Your task to perform on an android device: stop showing notifications on the lock screen Image 0: 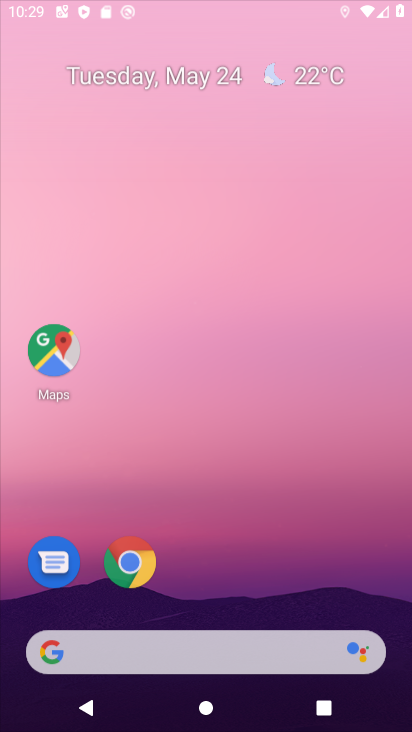
Step 0: click (131, 565)
Your task to perform on an android device: stop showing notifications on the lock screen Image 1: 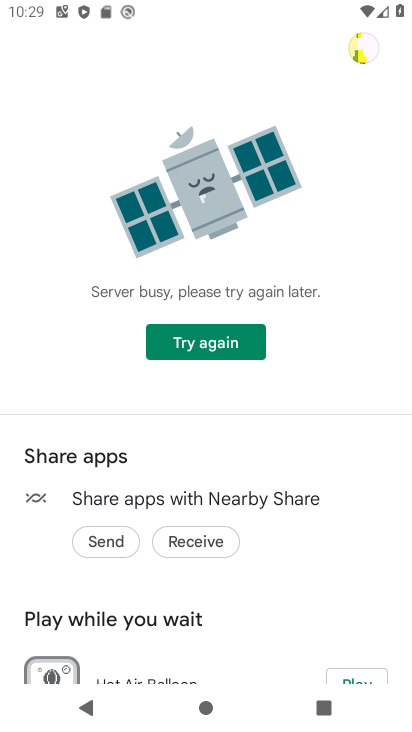
Step 1: press home button
Your task to perform on an android device: stop showing notifications on the lock screen Image 2: 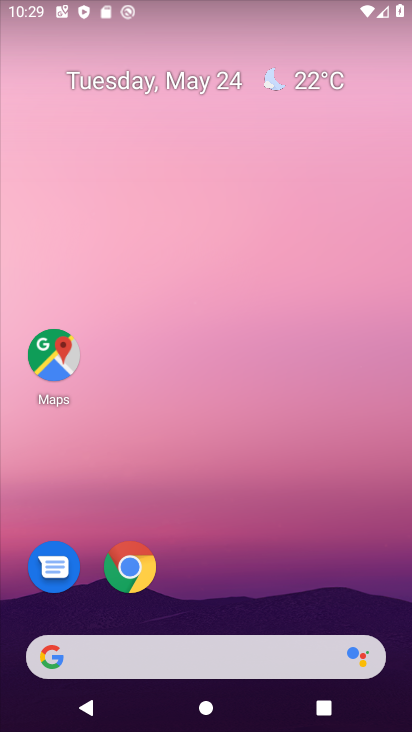
Step 2: drag from (192, 582) to (202, 13)
Your task to perform on an android device: stop showing notifications on the lock screen Image 3: 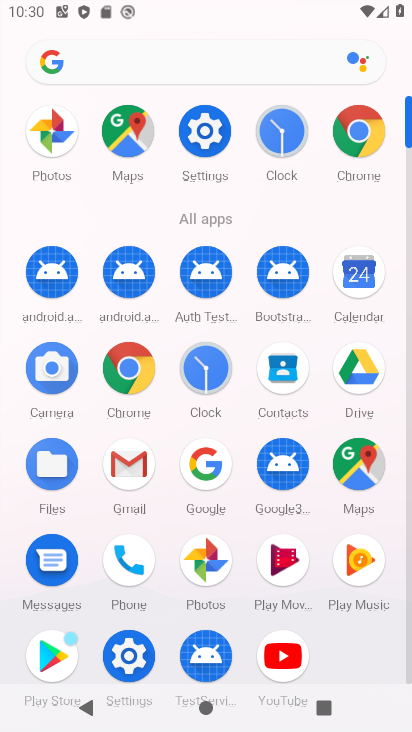
Step 3: click (197, 142)
Your task to perform on an android device: stop showing notifications on the lock screen Image 4: 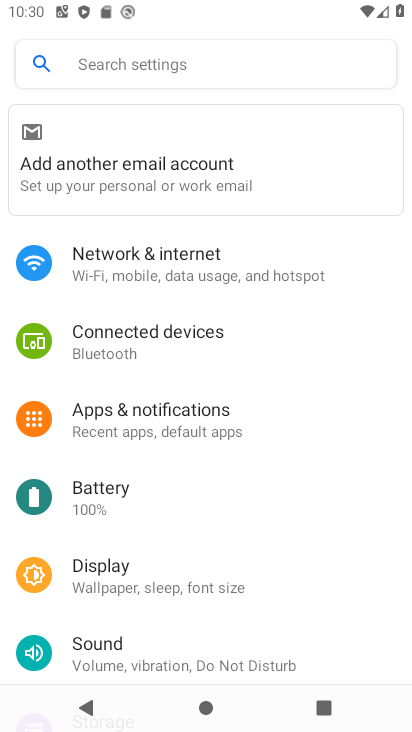
Step 4: click (214, 439)
Your task to perform on an android device: stop showing notifications on the lock screen Image 5: 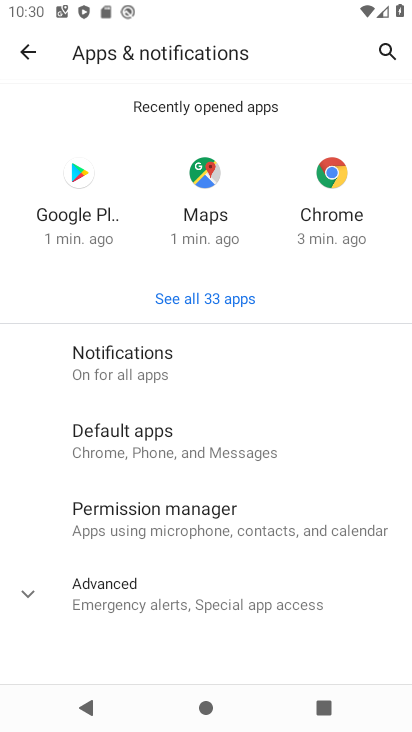
Step 5: click (129, 370)
Your task to perform on an android device: stop showing notifications on the lock screen Image 6: 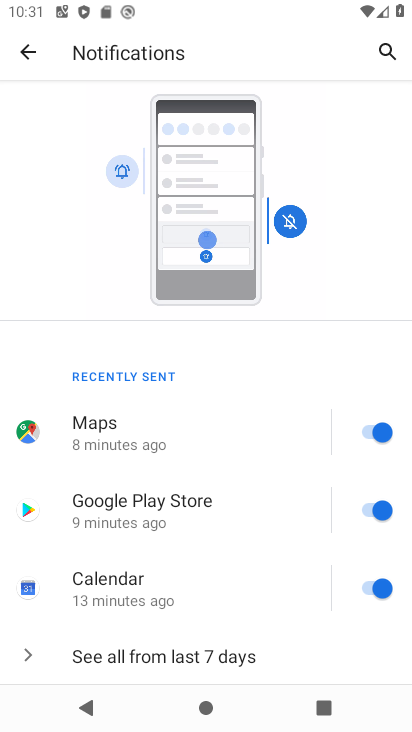
Step 6: drag from (181, 563) to (207, 261)
Your task to perform on an android device: stop showing notifications on the lock screen Image 7: 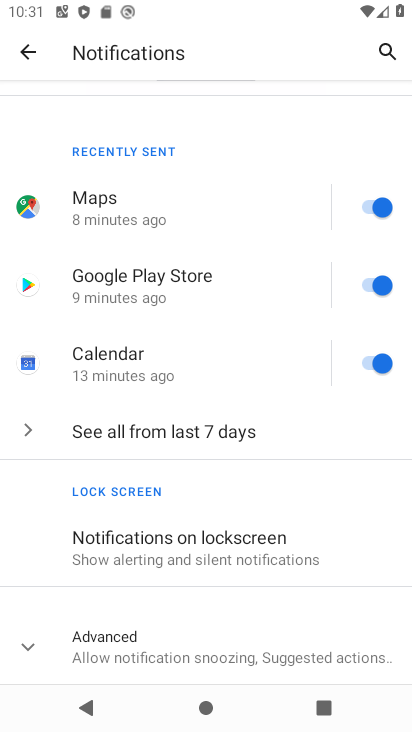
Step 7: drag from (129, 549) to (227, 160)
Your task to perform on an android device: stop showing notifications on the lock screen Image 8: 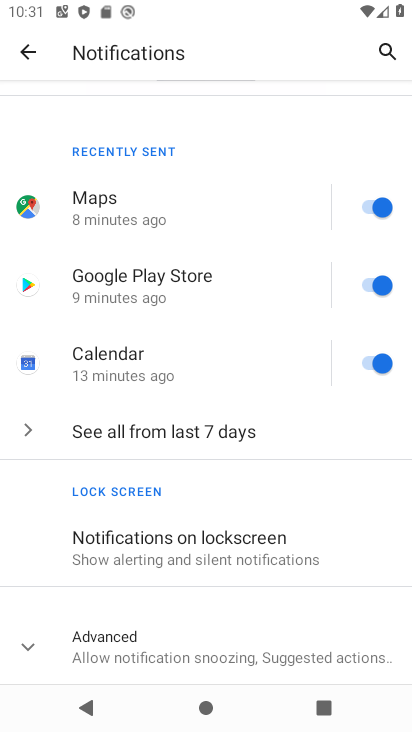
Step 8: click (185, 570)
Your task to perform on an android device: stop showing notifications on the lock screen Image 9: 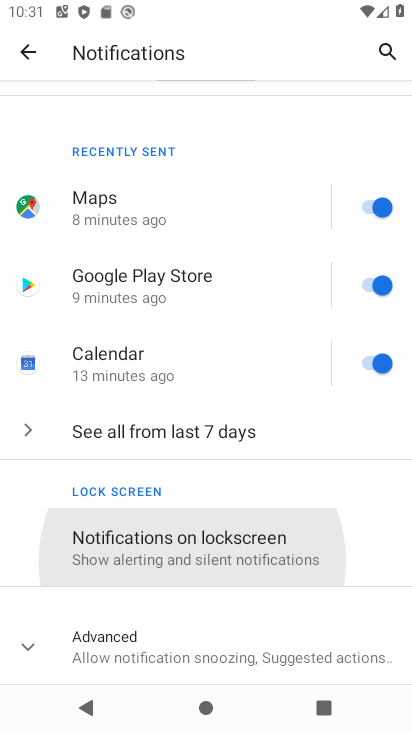
Step 9: click (168, 556)
Your task to perform on an android device: stop showing notifications on the lock screen Image 10: 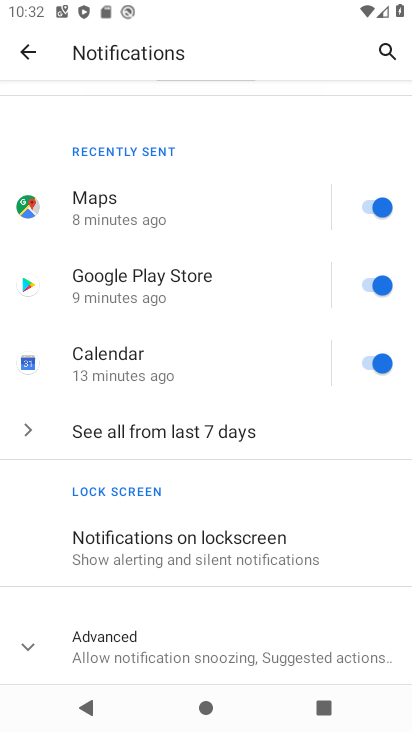
Step 10: click (162, 559)
Your task to perform on an android device: stop showing notifications on the lock screen Image 11: 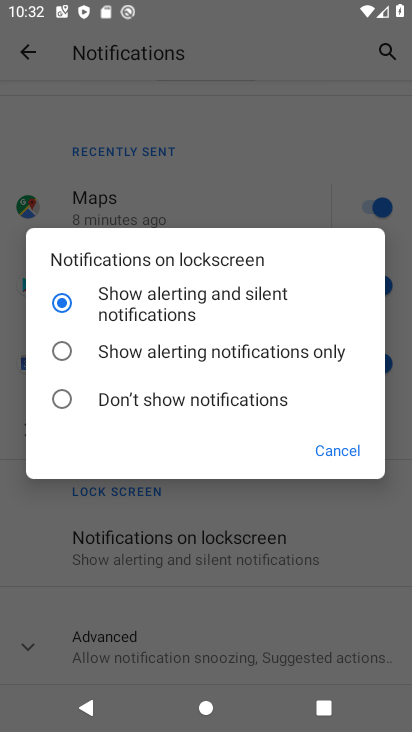
Step 11: click (145, 403)
Your task to perform on an android device: stop showing notifications on the lock screen Image 12: 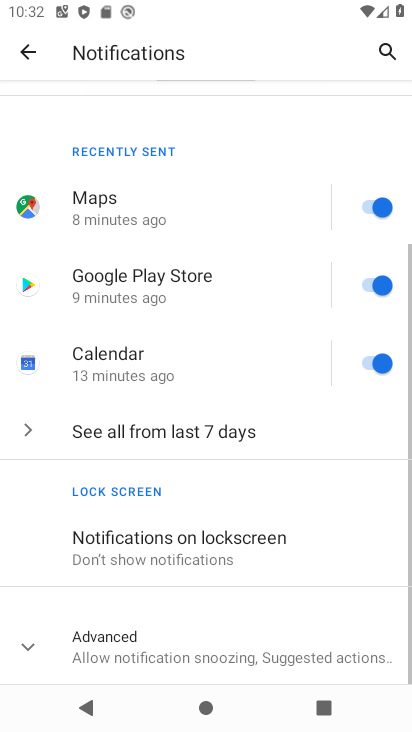
Step 12: task complete